Your task to perform on an android device: install app "Roku - Official Remote Control" Image 0: 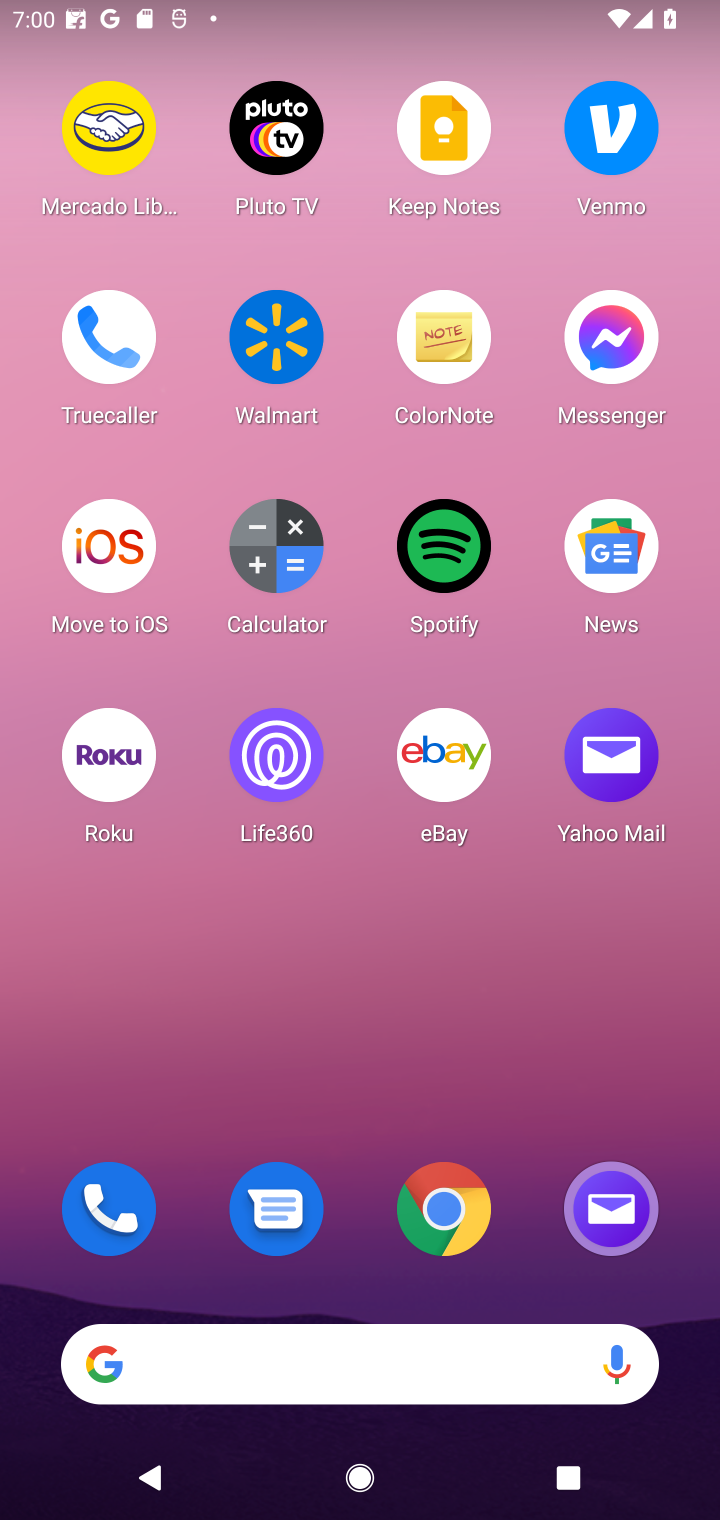
Step 0: drag from (367, 1281) to (370, 7)
Your task to perform on an android device: install app "Roku - Official Remote Control" Image 1: 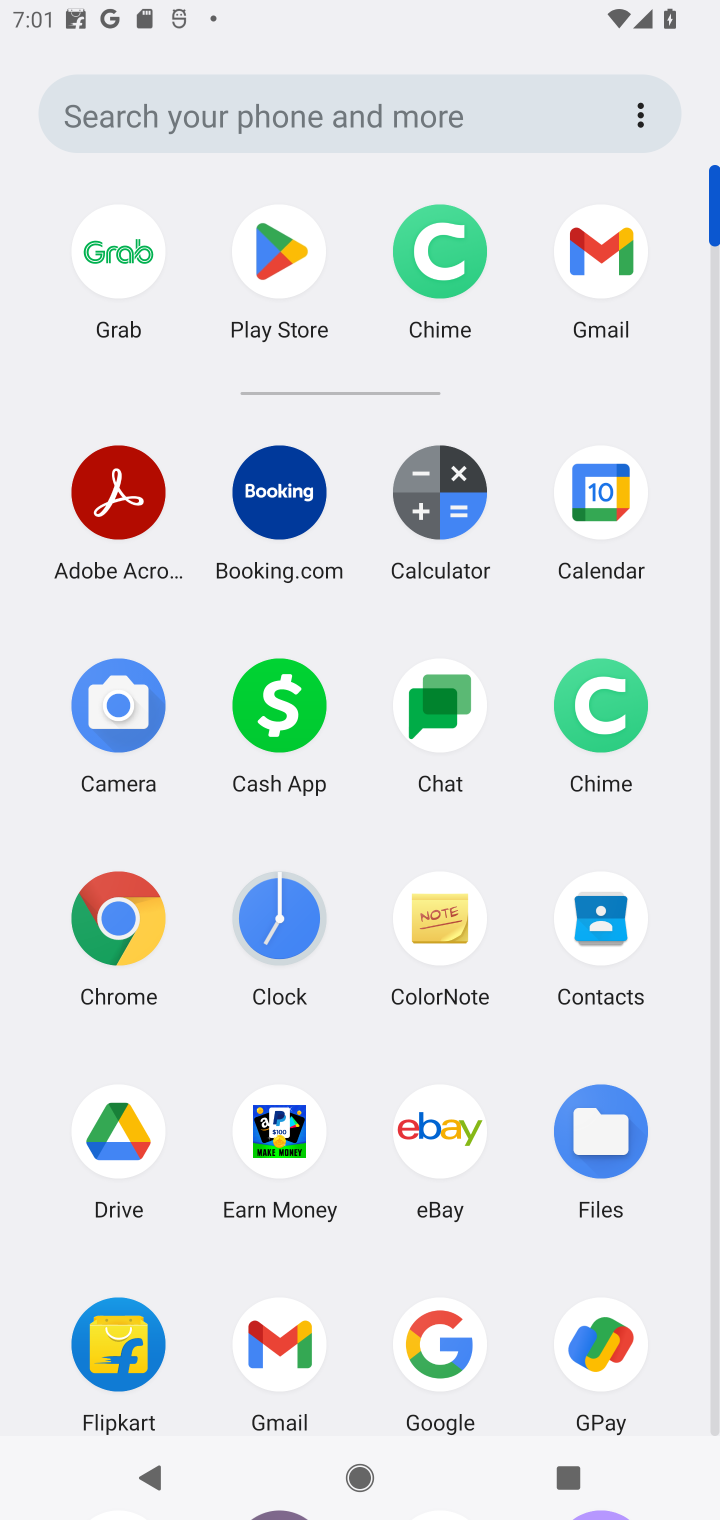
Step 1: click (313, 266)
Your task to perform on an android device: install app "Roku - Official Remote Control" Image 2: 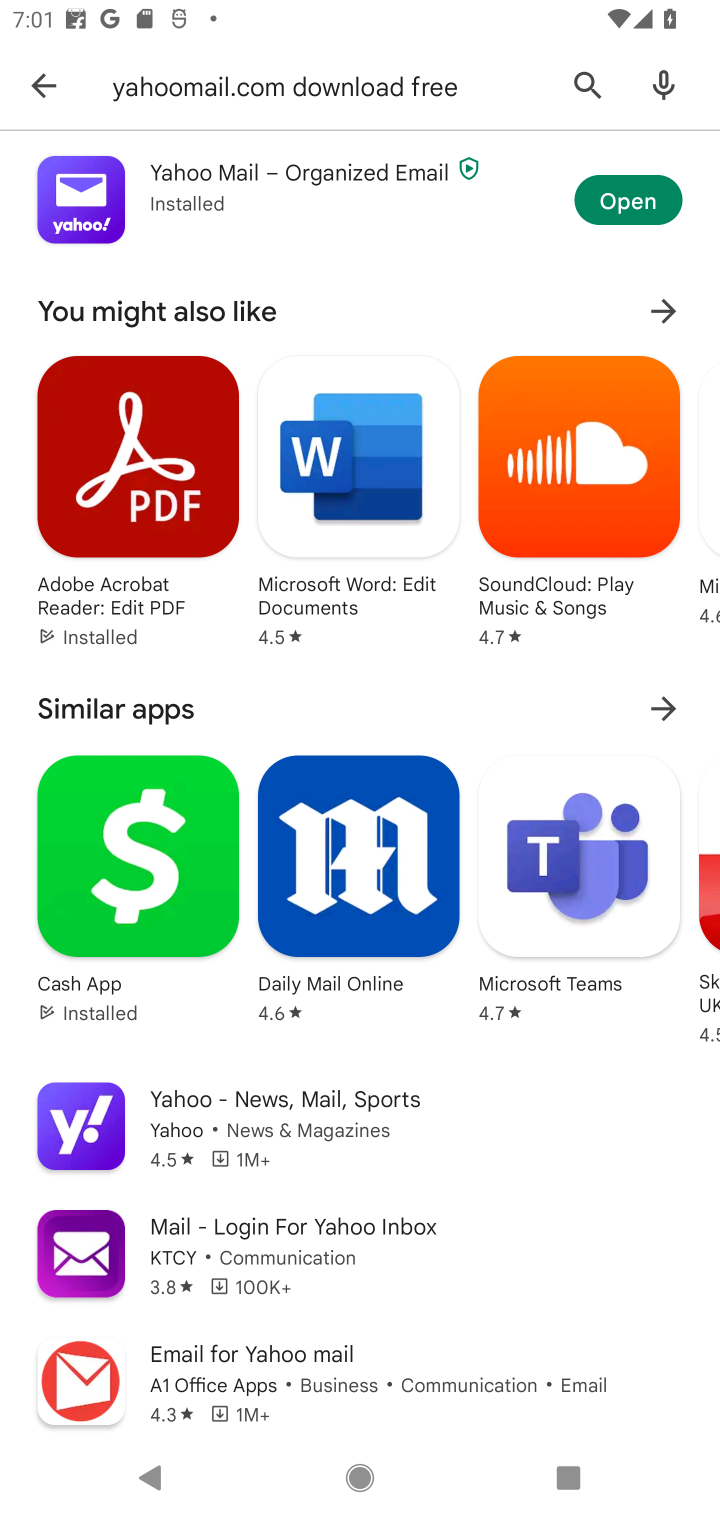
Step 2: click (616, 93)
Your task to perform on an android device: install app "Roku - Official Remote Control" Image 3: 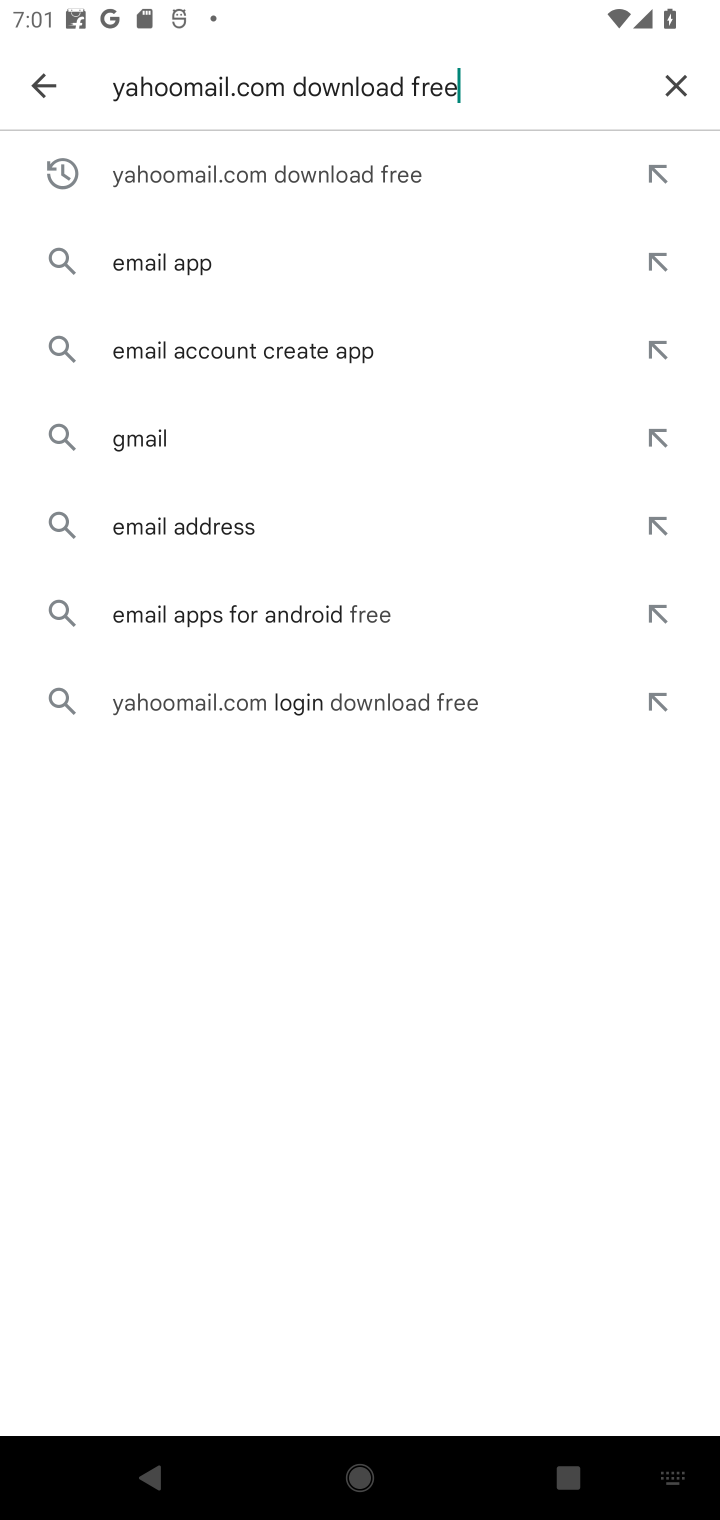
Step 3: click (706, 91)
Your task to perform on an android device: install app "Roku - Official Remote Control" Image 4: 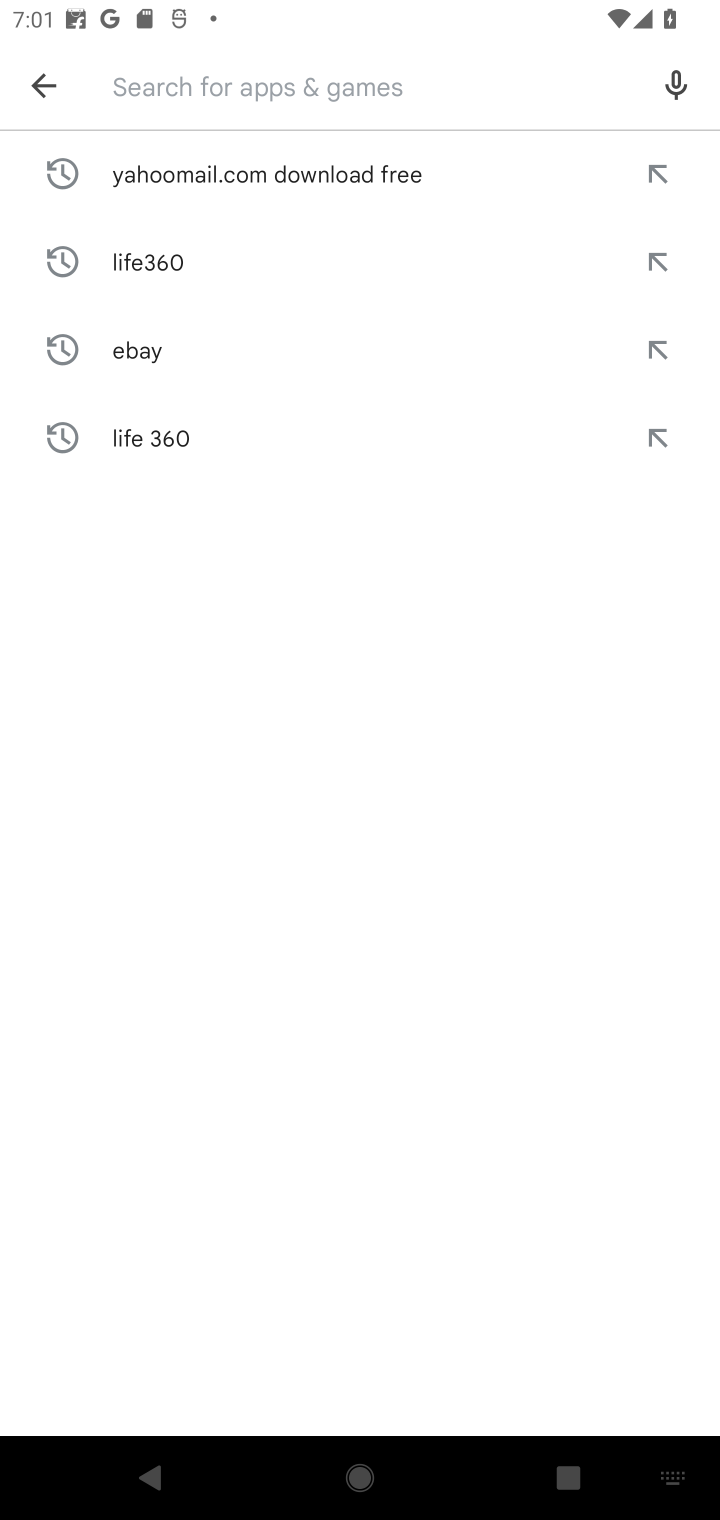
Step 4: type "roku"
Your task to perform on an android device: install app "Roku - Official Remote Control" Image 5: 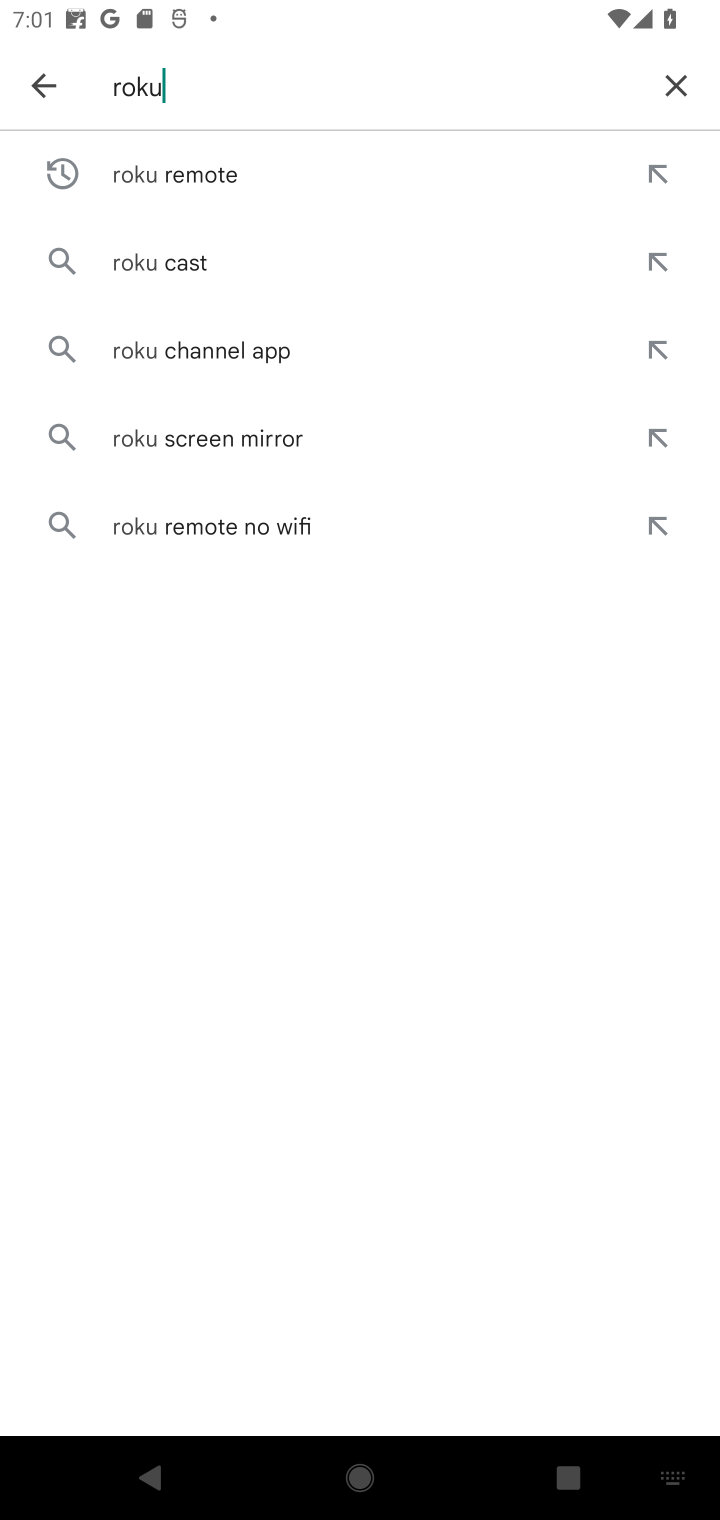
Step 5: click (223, 161)
Your task to perform on an android device: install app "Roku - Official Remote Control" Image 6: 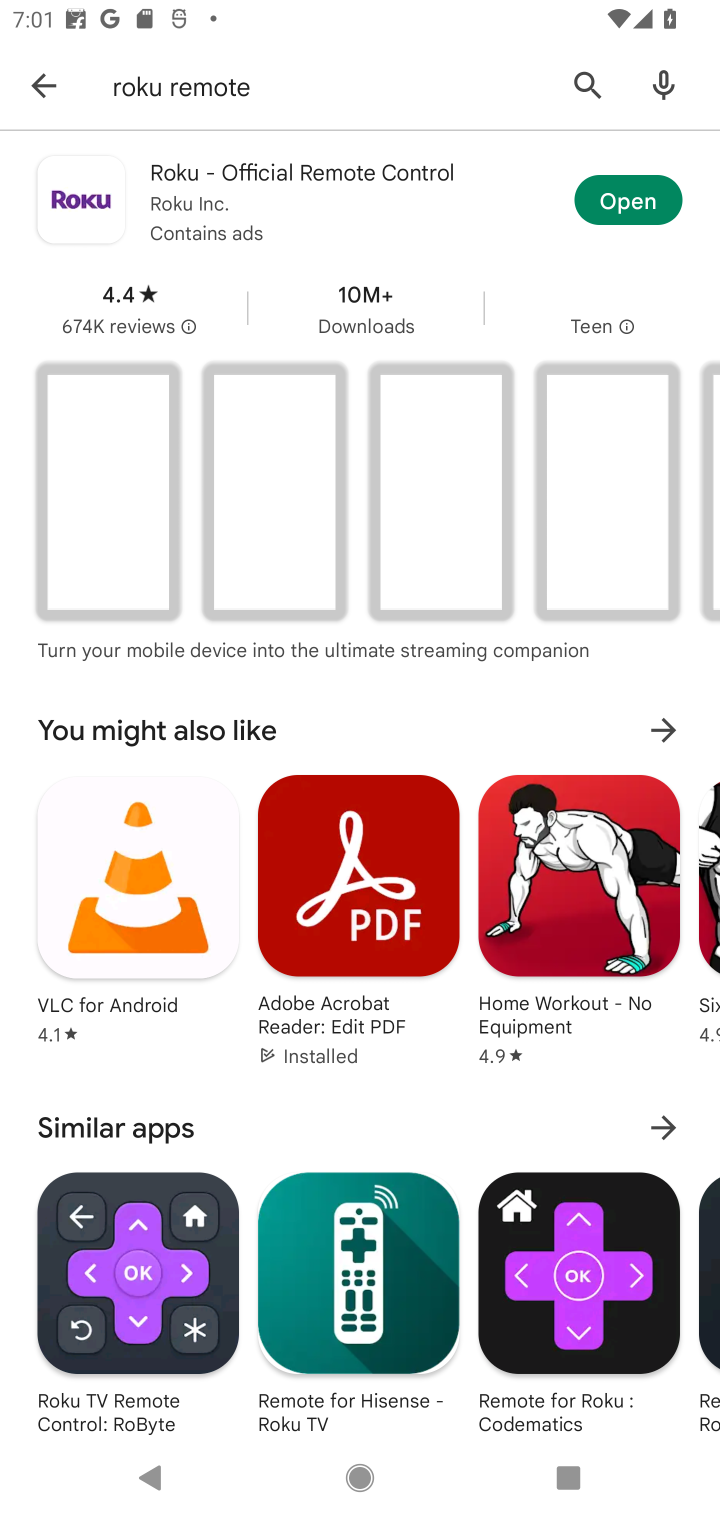
Step 6: click (632, 189)
Your task to perform on an android device: install app "Roku - Official Remote Control" Image 7: 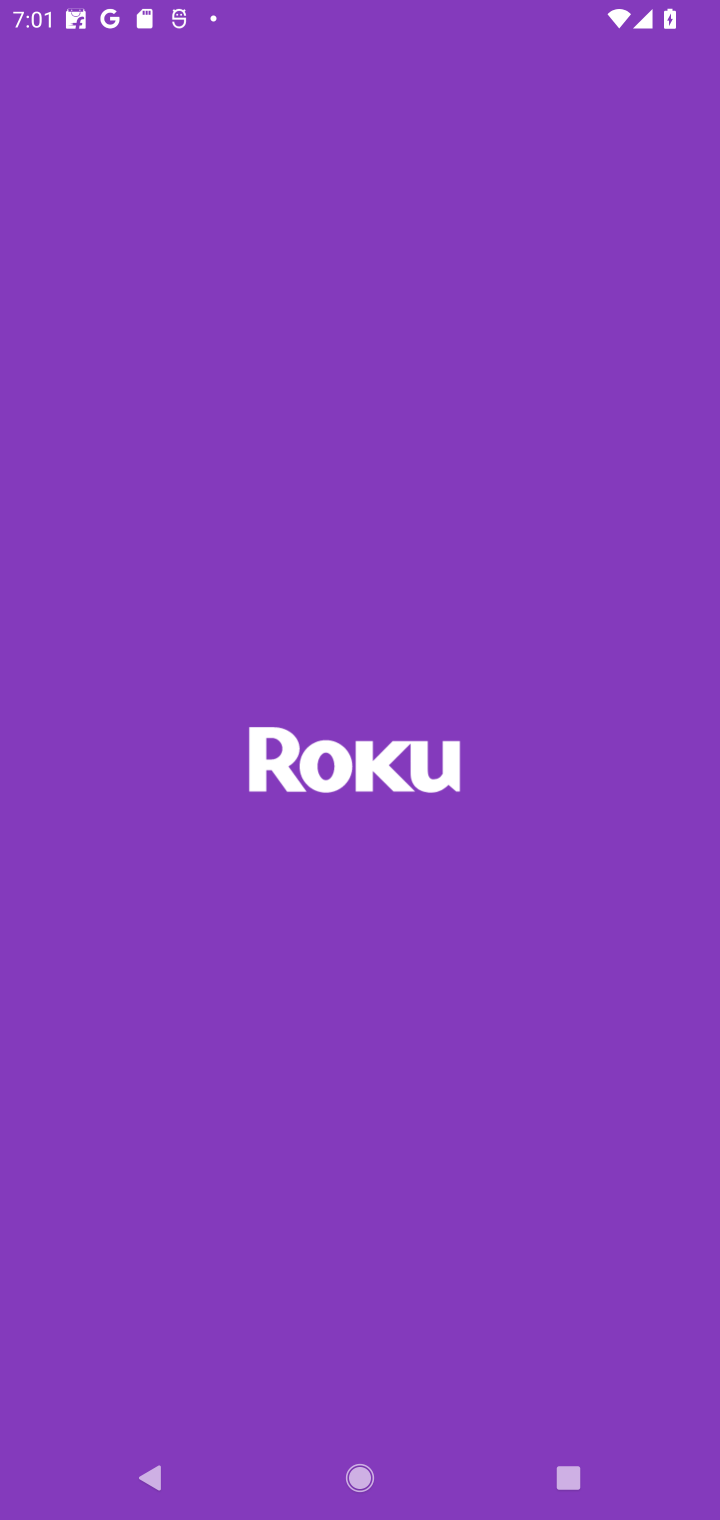
Step 7: task complete